Your task to perform on an android device: change alarm snooze length Image 0: 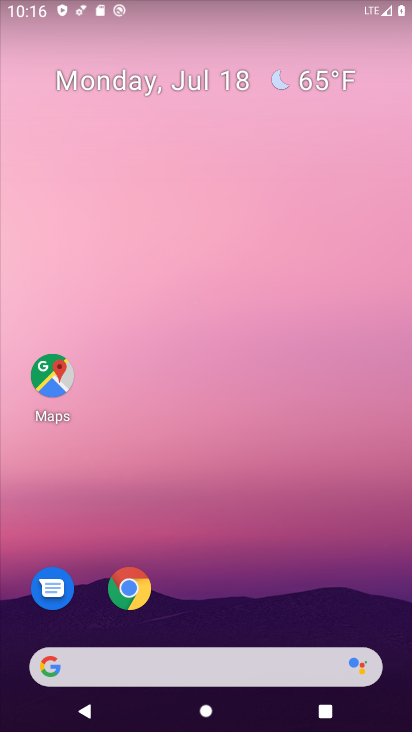
Step 0: press home button
Your task to perform on an android device: change alarm snooze length Image 1: 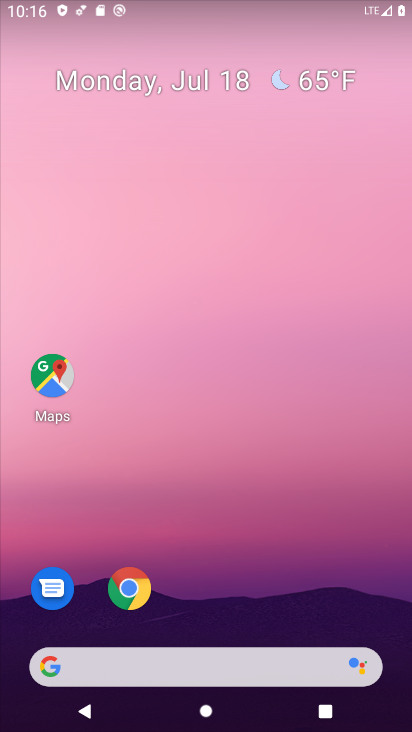
Step 1: drag from (261, 581) to (293, 14)
Your task to perform on an android device: change alarm snooze length Image 2: 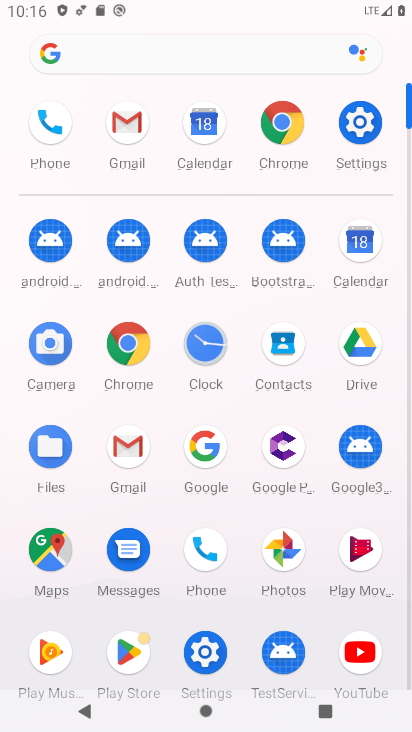
Step 2: click (208, 340)
Your task to perform on an android device: change alarm snooze length Image 3: 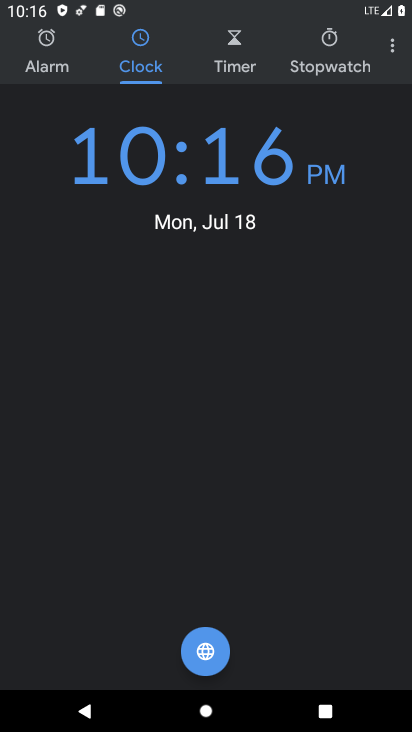
Step 3: click (390, 44)
Your task to perform on an android device: change alarm snooze length Image 4: 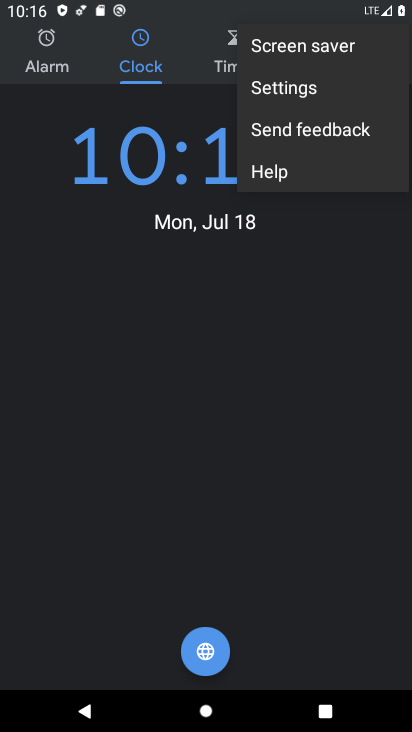
Step 4: click (311, 87)
Your task to perform on an android device: change alarm snooze length Image 5: 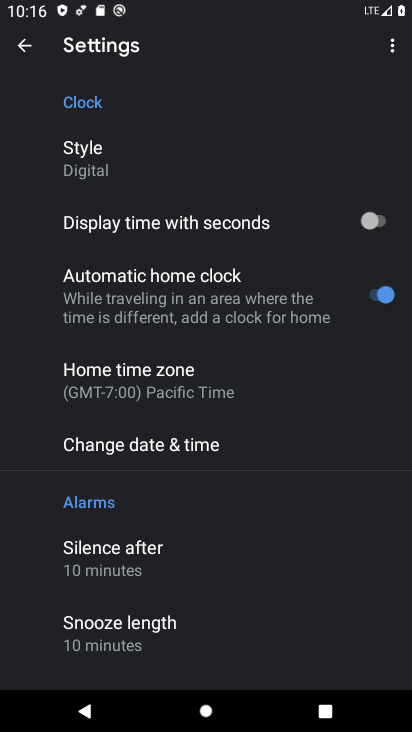
Step 5: click (145, 636)
Your task to perform on an android device: change alarm snooze length Image 6: 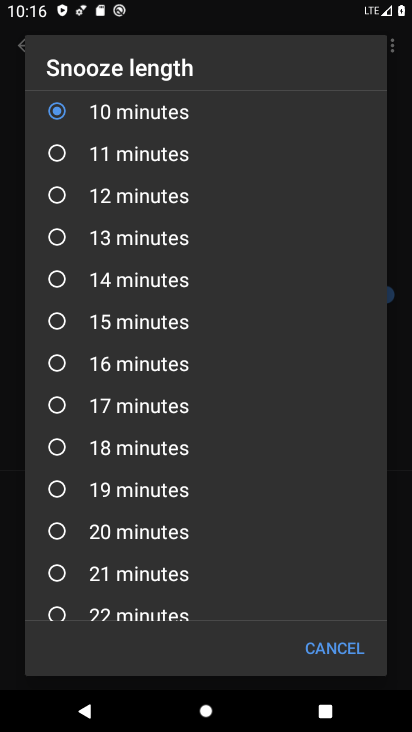
Step 6: click (59, 321)
Your task to perform on an android device: change alarm snooze length Image 7: 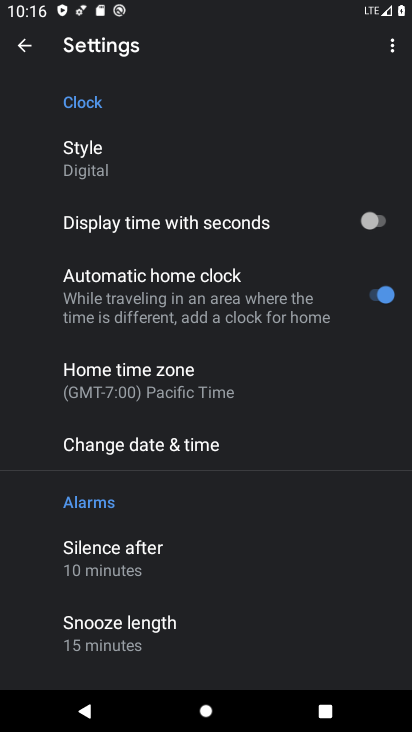
Step 7: task complete